Your task to perform on an android device: star an email in the gmail app Image 0: 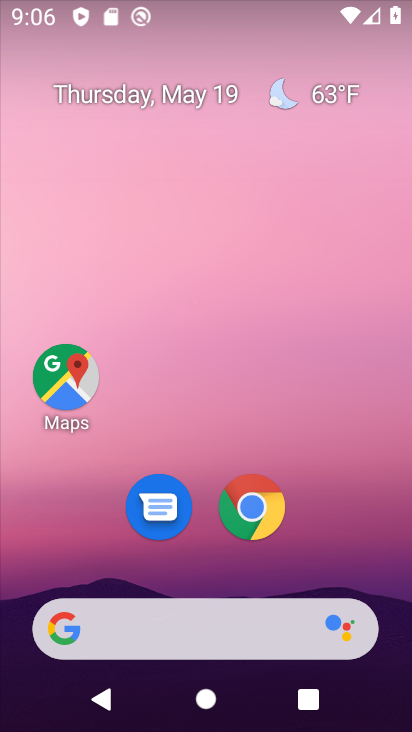
Step 0: drag from (356, 569) to (342, 56)
Your task to perform on an android device: star an email in the gmail app Image 1: 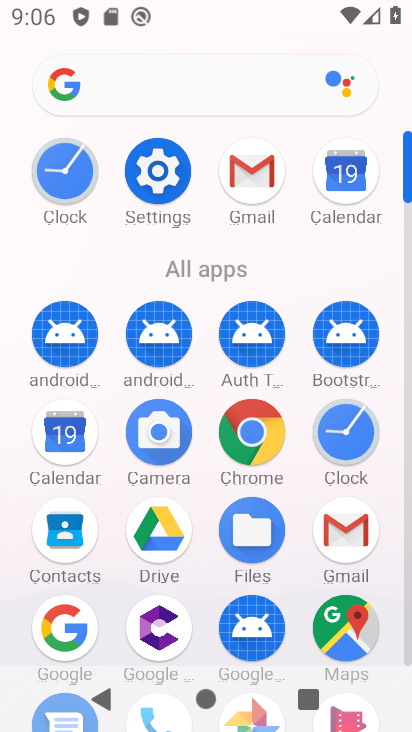
Step 1: click (252, 190)
Your task to perform on an android device: star an email in the gmail app Image 2: 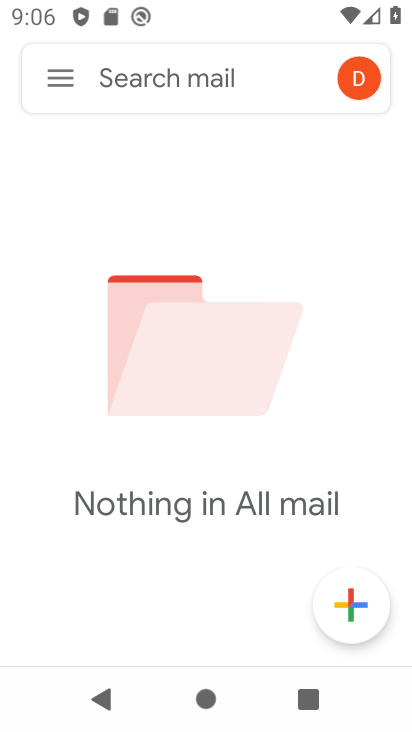
Step 2: task complete